Your task to perform on an android device: Show me recent news Image 0: 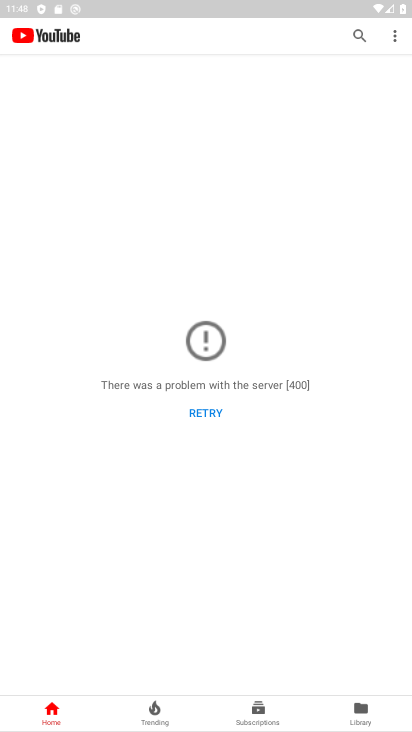
Step 0: press home button
Your task to perform on an android device: Show me recent news Image 1: 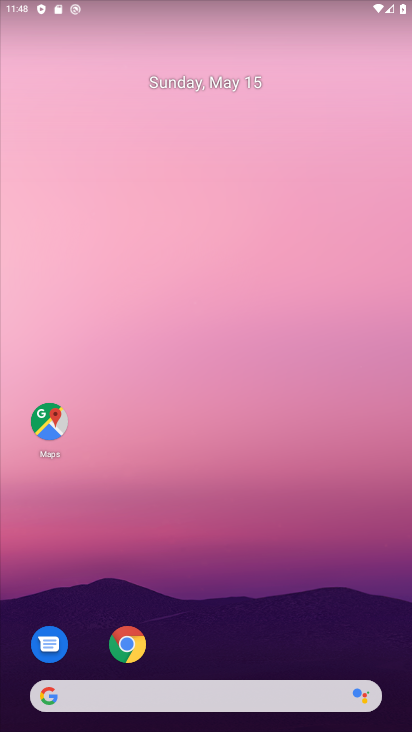
Step 1: drag from (200, 635) to (297, 2)
Your task to perform on an android device: Show me recent news Image 2: 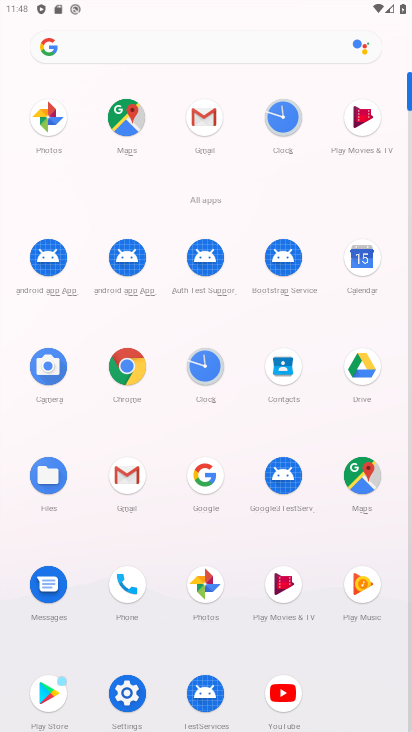
Step 2: click (211, 45)
Your task to perform on an android device: Show me recent news Image 3: 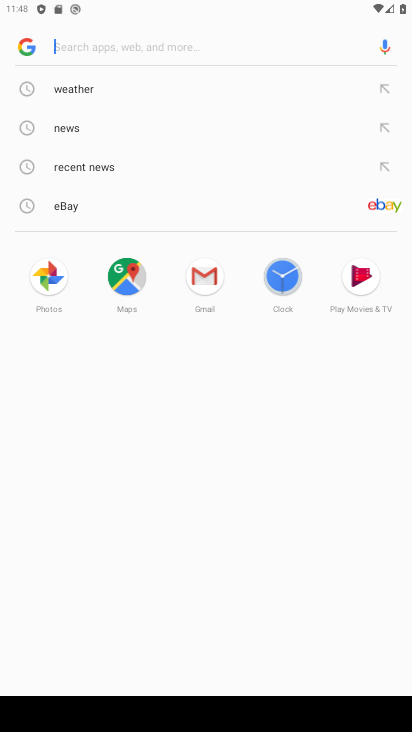
Step 3: type "recent news"
Your task to perform on an android device: Show me recent news Image 4: 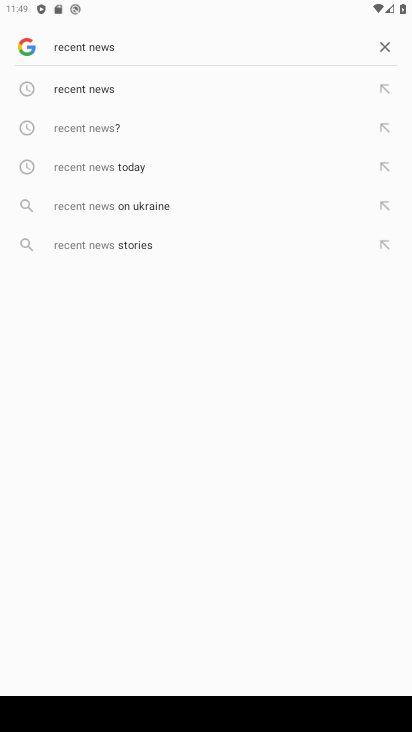
Step 4: click (133, 95)
Your task to perform on an android device: Show me recent news Image 5: 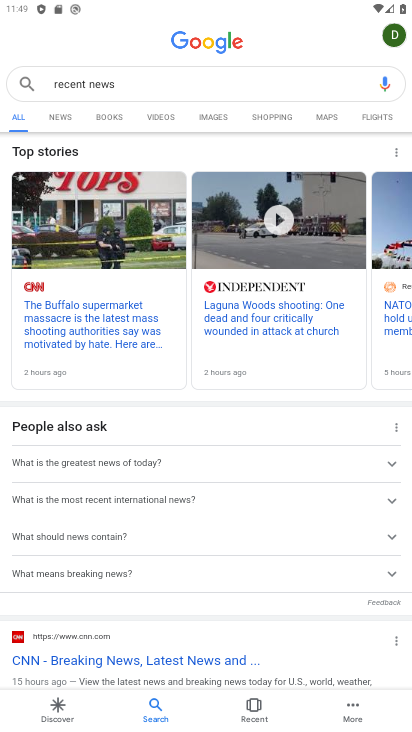
Step 5: task complete